Your task to perform on an android device: What is the average speed of a car? Image 0: 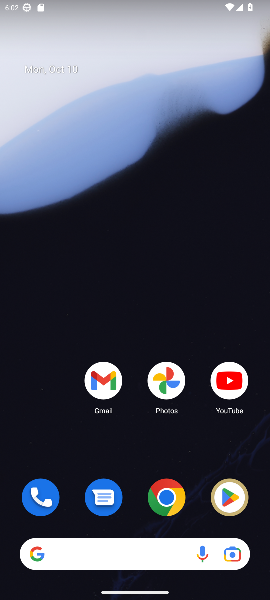
Step 0: drag from (103, 519) to (107, 224)
Your task to perform on an android device: What is the average speed of a car? Image 1: 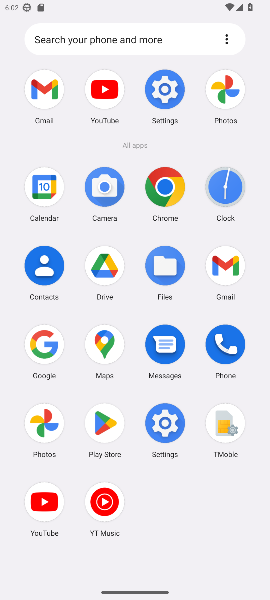
Step 1: click (33, 341)
Your task to perform on an android device: What is the average speed of a car? Image 2: 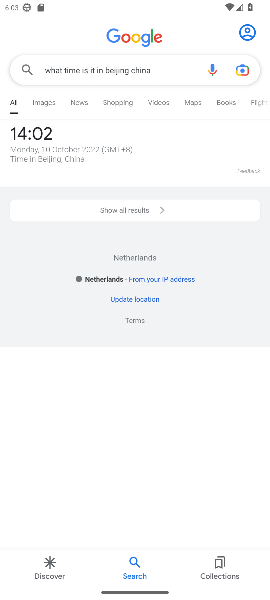
Step 2: click (161, 64)
Your task to perform on an android device: What is the average speed of a car? Image 3: 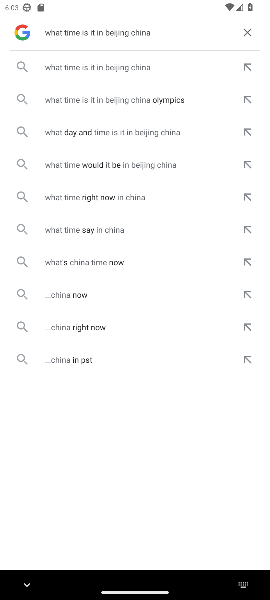
Step 3: click (247, 28)
Your task to perform on an android device: What is the average speed of a car? Image 4: 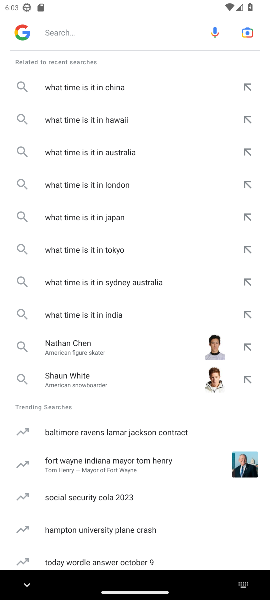
Step 4: click (134, 19)
Your task to perform on an android device: What is the average speed of a car? Image 5: 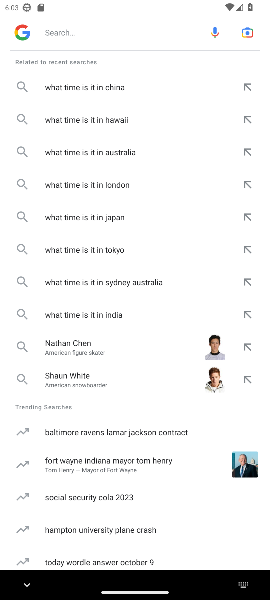
Step 5: type "What is the average speed of a car? "
Your task to perform on an android device: What is the average speed of a car? Image 6: 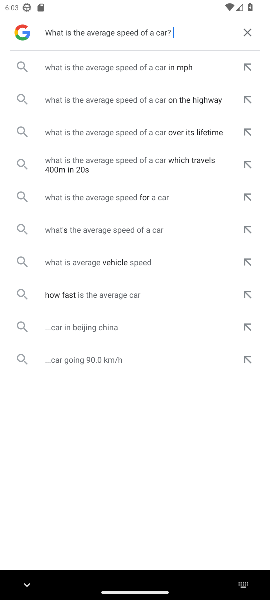
Step 6: click (122, 63)
Your task to perform on an android device: What is the average speed of a car? Image 7: 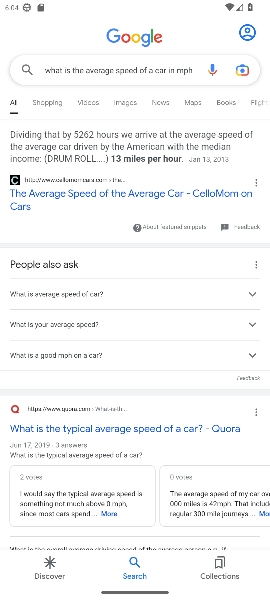
Step 7: click (99, 431)
Your task to perform on an android device: What is the average speed of a car? Image 8: 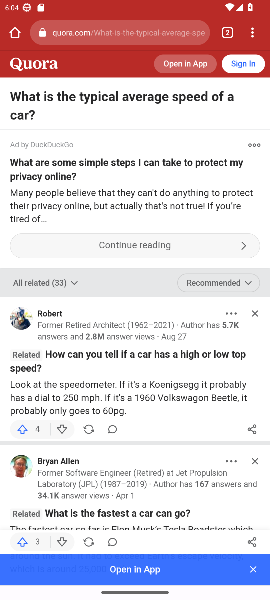
Step 8: press back button
Your task to perform on an android device: What is the average speed of a car? Image 9: 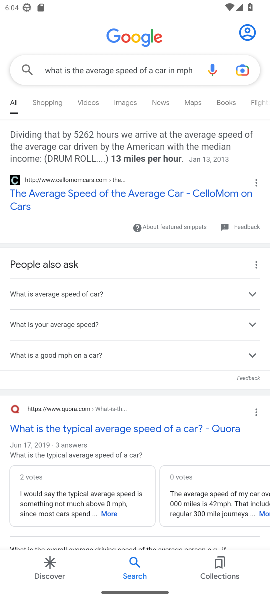
Step 9: click (62, 291)
Your task to perform on an android device: What is the average speed of a car? Image 10: 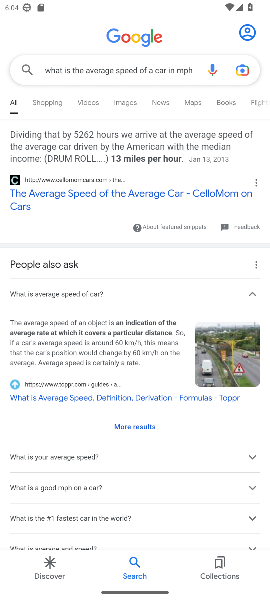
Step 10: task complete